Your task to perform on an android device: Open Android settings Image 0: 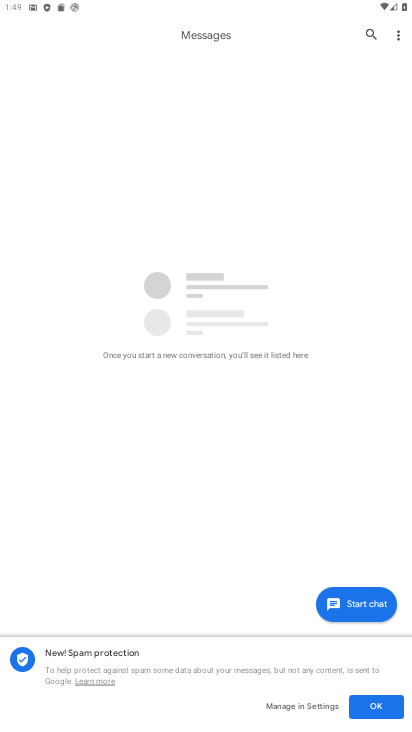
Step 0: press back button
Your task to perform on an android device: Open Android settings Image 1: 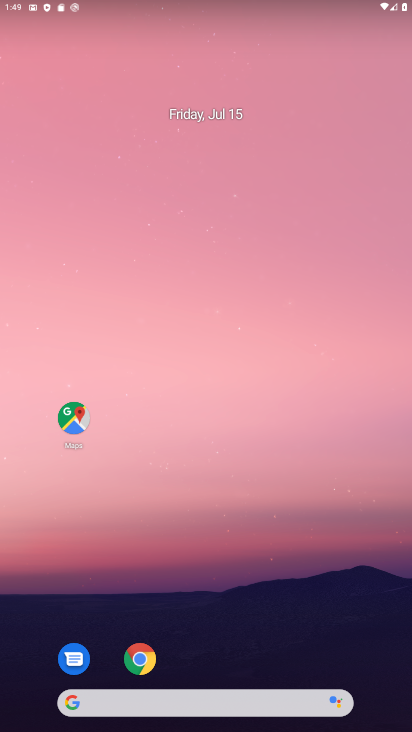
Step 1: drag from (267, 82) to (239, 39)
Your task to perform on an android device: Open Android settings Image 2: 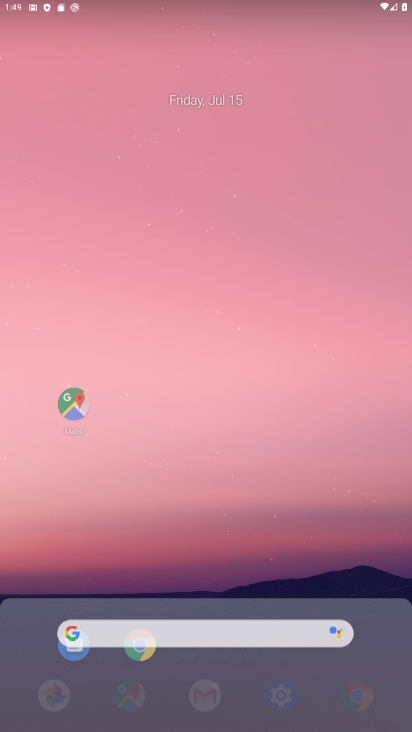
Step 2: drag from (205, 311) to (194, 18)
Your task to perform on an android device: Open Android settings Image 3: 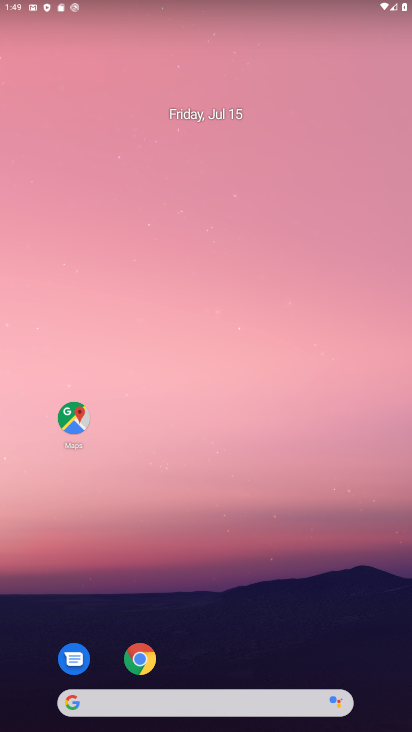
Step 3: drag from (230, 232) to (217, 45)
Your task to perform on an android device: Open Android settings Image 4: 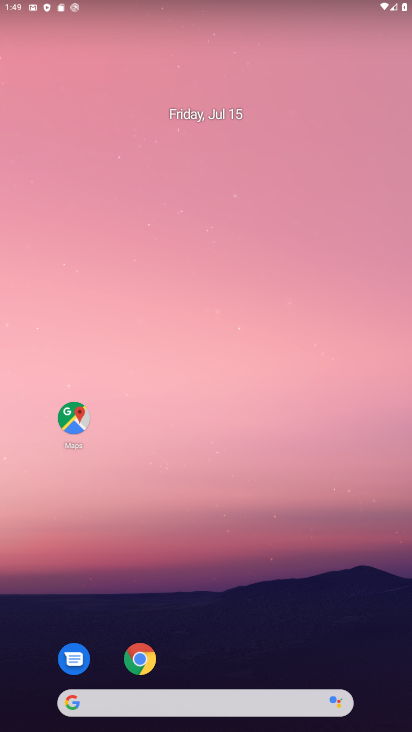
Step 4: drag from (242, 560) to (179, 126)
Your task to perform on an android device: Open Android settings Image 5: 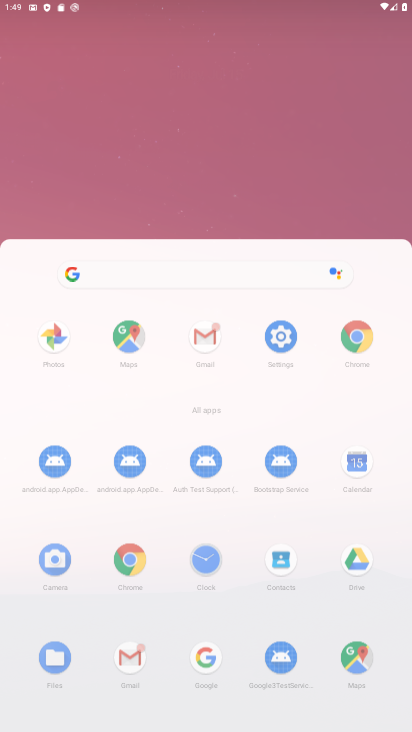
Step 5: drag from (254, 590) to (203, 173)
Your task to perform on an android device: Open Android settings Image 6: 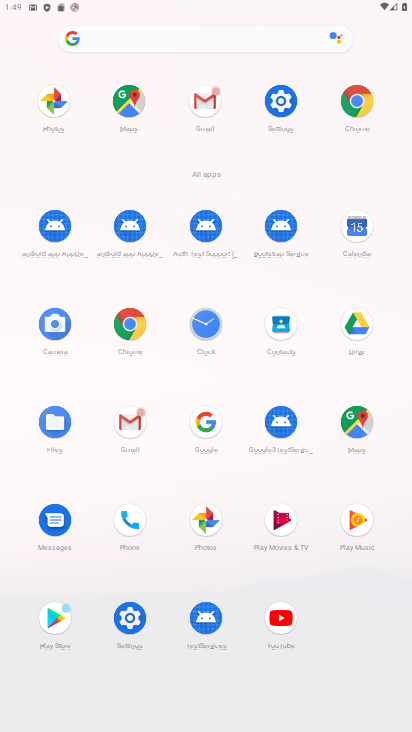
Step 6: click (128, 617)
Your task to perform on an android device: Open Android settings Image 7: 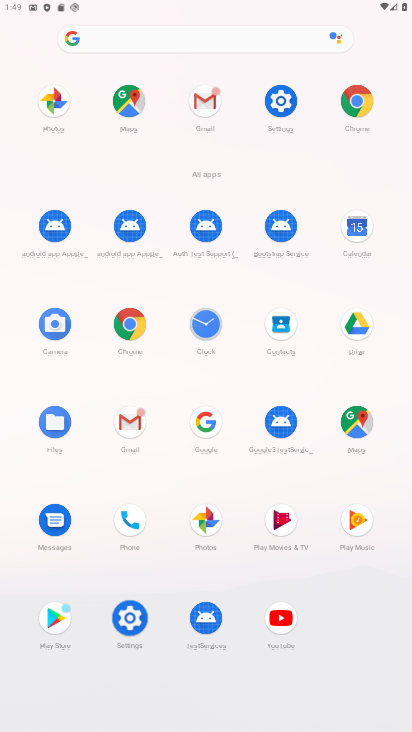
Step 7: click (128, 617)
Your task to perform on an android device: Open Android settings Image 8: 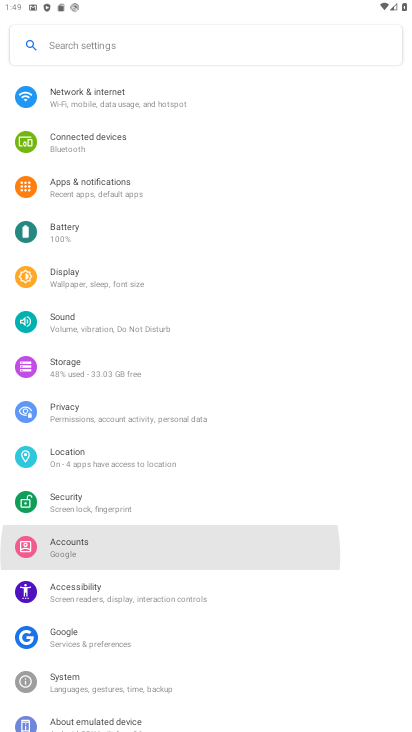
Step 8: click (128, 617)
Your task to perform on an android device: Open Android settings Image 9: 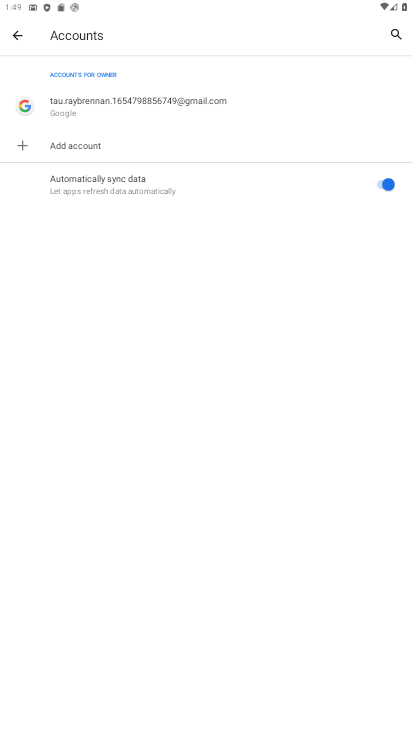
Step 9: click (18, 36)
Your task to perform on an android device: Open Android settings Image 10: 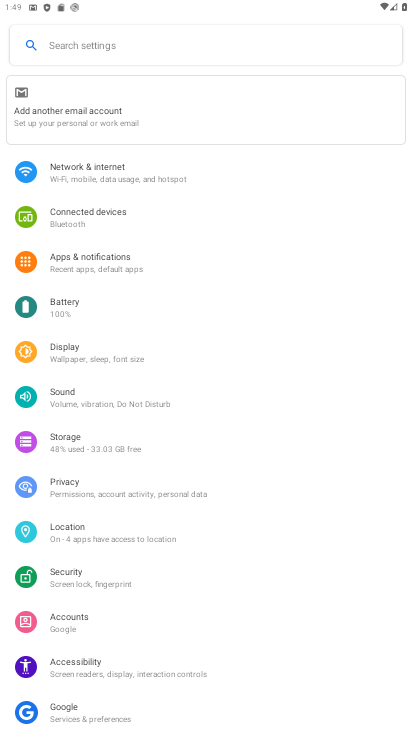
Step 10: drag from (91, 669) to (73, 335)
Your task to perform on an android device: Open Android settings Image 11: 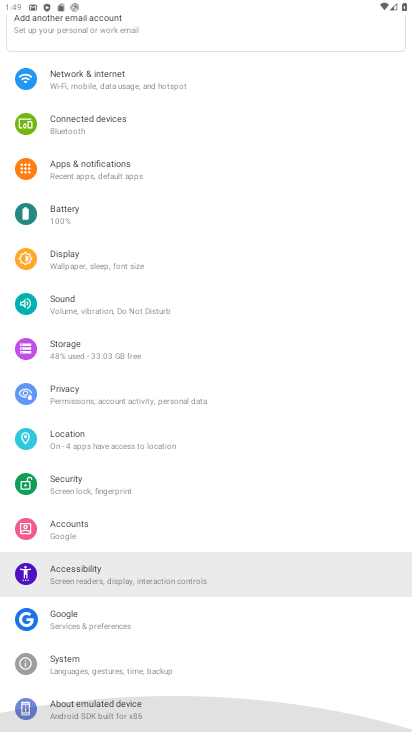
Step 11: drag from (149, 433) to (84, 153)
Your task to perform on an android device: Open Android settings Image 12: 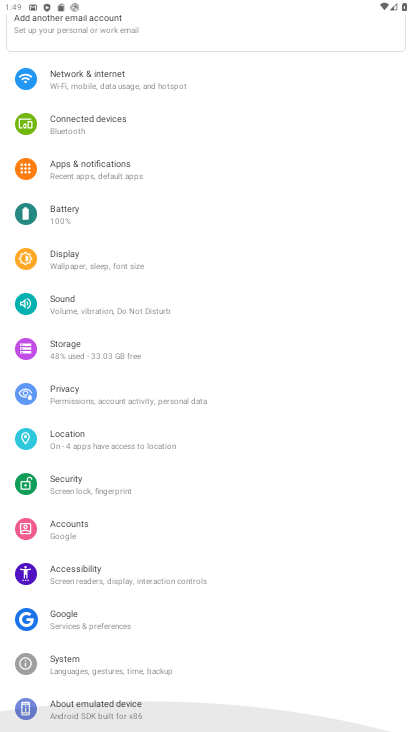
Step 12: drag from (110, 386) to (56, 109)
Your task to perform on an android device: Open Android settings Image 13: 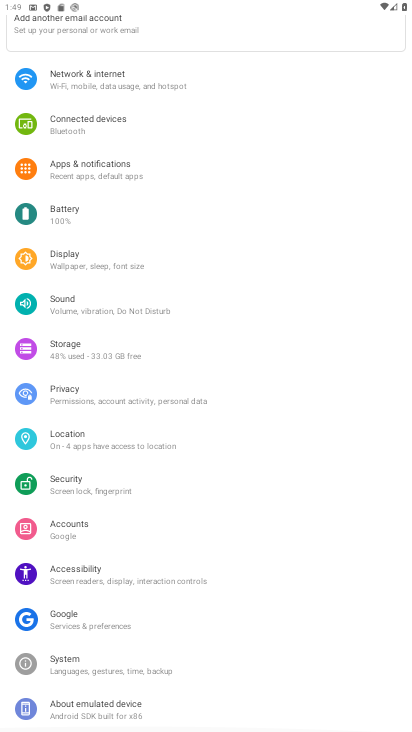
Step 13: click (76, 713)
Your task to perform on an android device: Open Android settings Image 14: 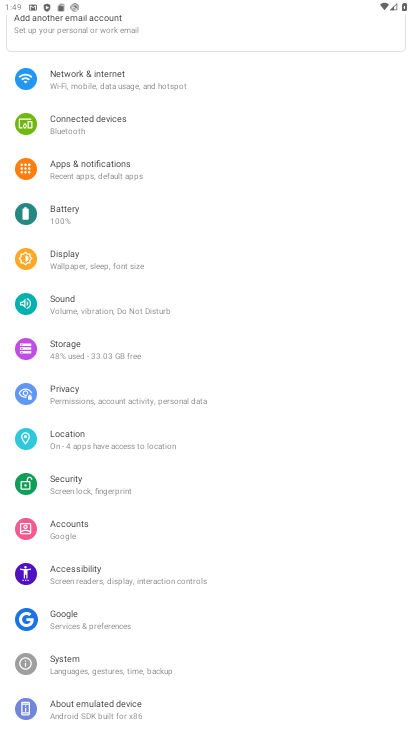
Step 14: click (76, 713)
Your task to perform on an android device: Open Android settings Image 15: 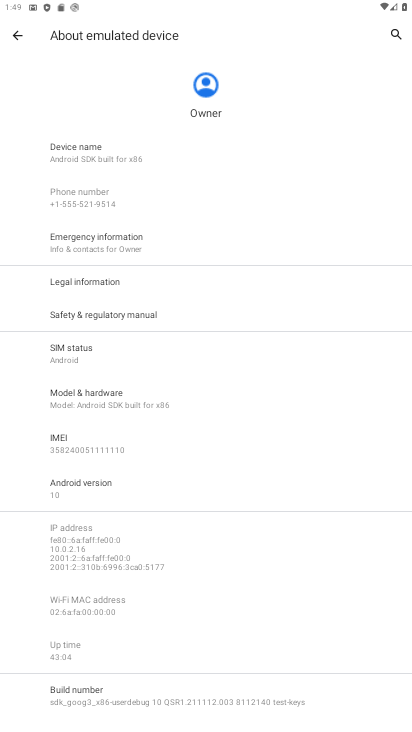
Step 15: click (87, 704)
Your task to perform on an android device: Open Android settings Image 16: 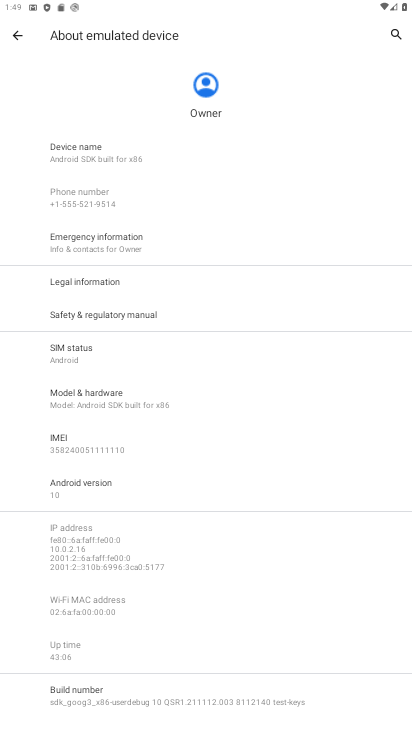
Step 16: task complete